Your task to perform on an android device: Look up the best rated coffee table on Ikea Image 0: 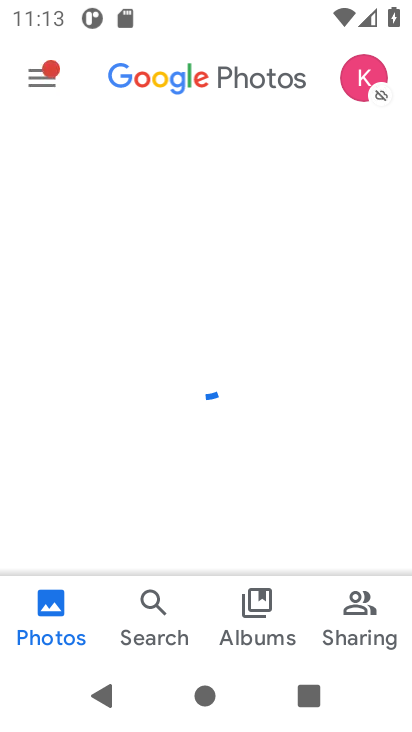
Step 0: click (246, 624)
Your task to perform on an android device: Look up the best rated coffee table on Ikea Image 1: 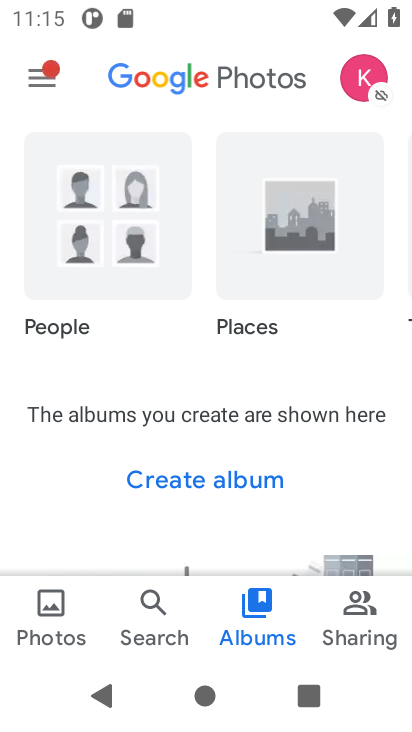
Step 1: task complete